Your task to perform on an android device: allow cookies in the chrome app Image 0: 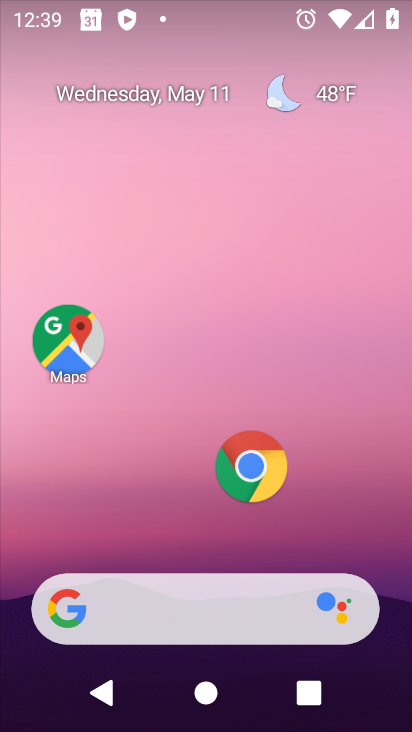
Step 0: click (255, 475)
Your task to perform on an android device: allow cookies in the chrome app Image 1: 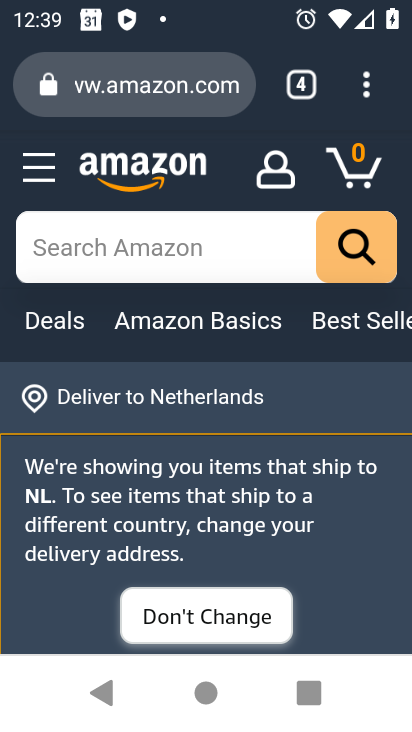
Step 1: drag from (365, 83) to (145, 510)
Your task to perform on an android device: allow cookies in the chrome app Image 2: 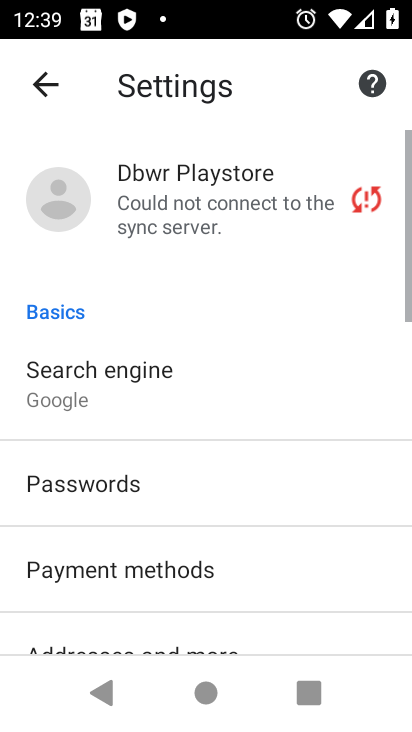
Step 2: drag from (123, 548) to (240, 142)
Your task to perform on an android device: allow cookies in the chrome app Image 3: 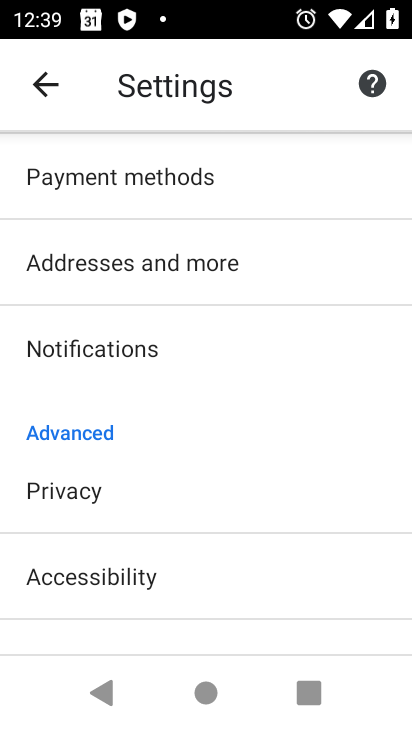
Step 3: drag from (131, 594) to (260, 103)
Your task to perform on an android device: allow cookies in the chrome app Image 4: 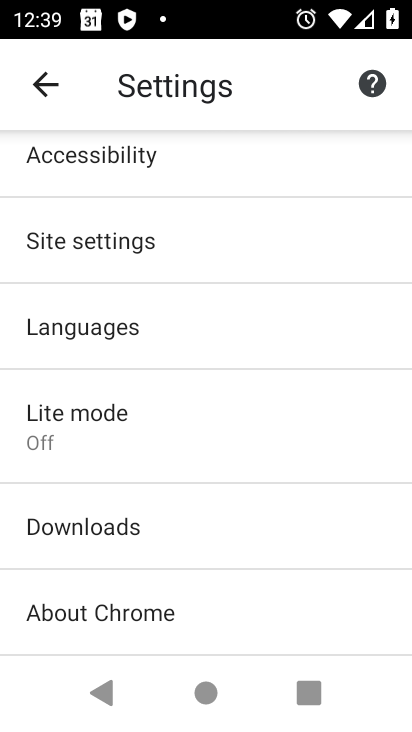
Step 4: click (81, 248)
Your task to perform on an android device: allow cookies in the chrome app Image 5: 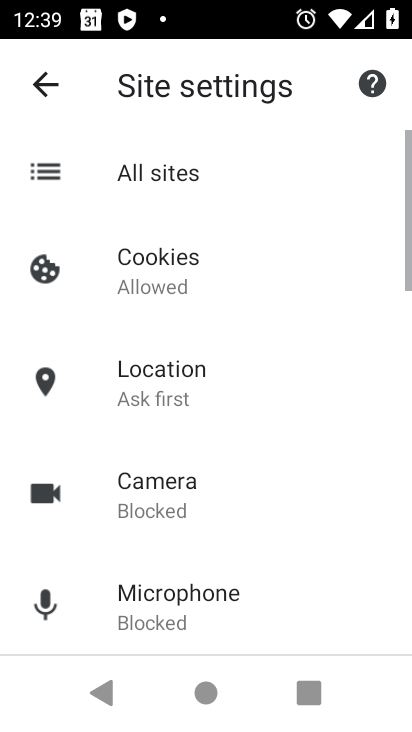
Step 5: click (168, 270)
Your task to perform on an android device: allow cookies in the chrome app Image 6: 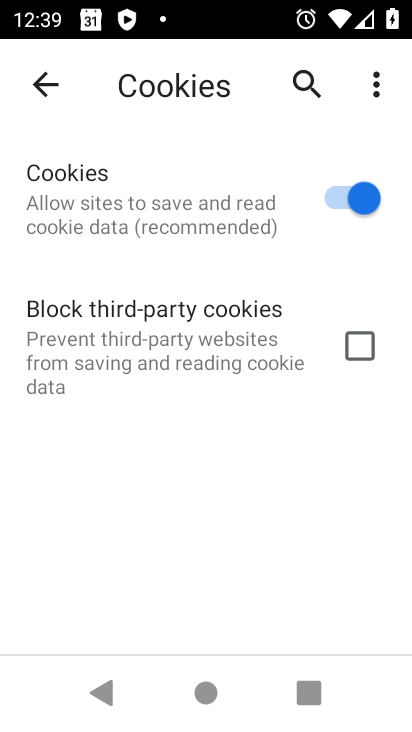
Step 6: task complete